Your task to perform on an android device: change keyboard looks Image 0: 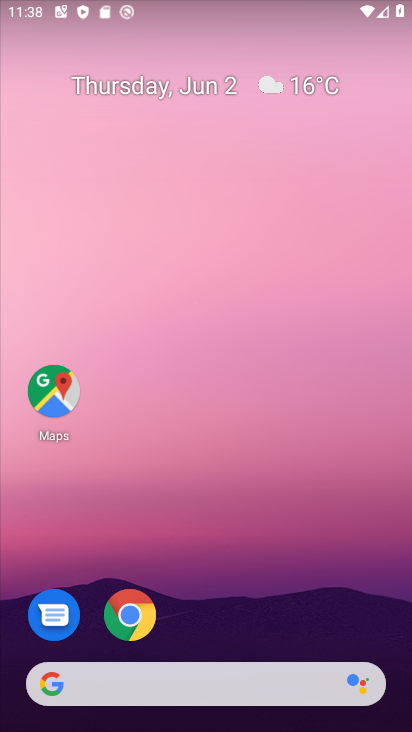
Step 0: drag from (240, 619) to (193, 217)
Your task to perform on an android device: change keyboard looks Image 1: 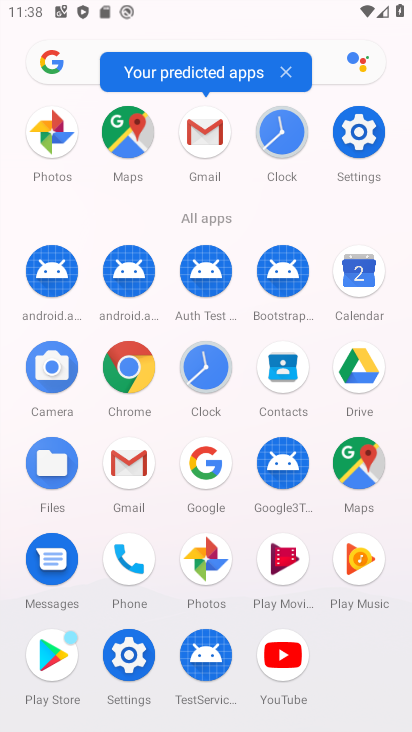
Step 1: click (127, 645)
Your task to perform on an android device: change keyboard looks Image 2: 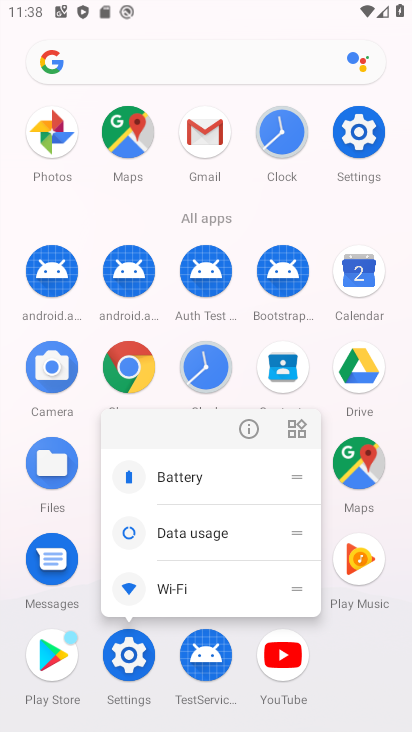
Step 2: click (350, 107)
Your task to perform on an android device: change keyboard looks Image 3: 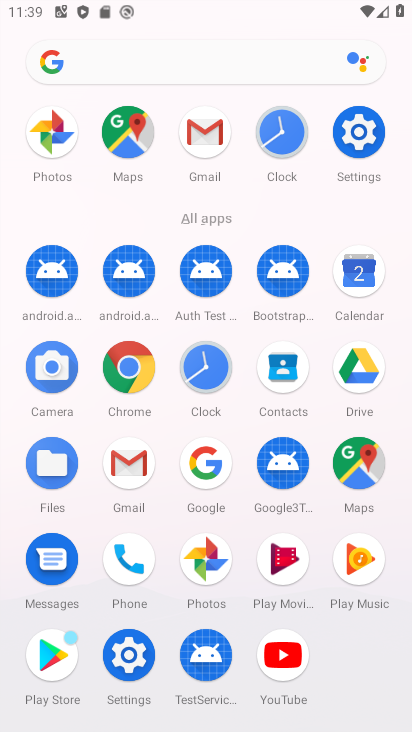
Step 3: click (362, 133)
Your task to perform on an android device: change keyboard looks Image 4: 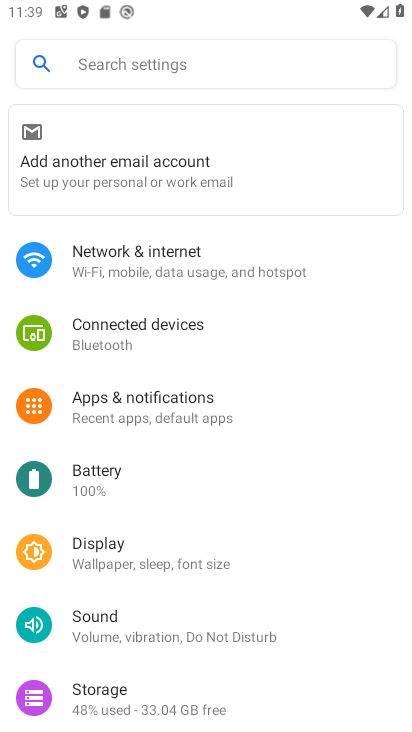
Step 4: drag from (208, 634) to (211, 335)
Your task to perform on an android device: change keyboard looks Image 5: 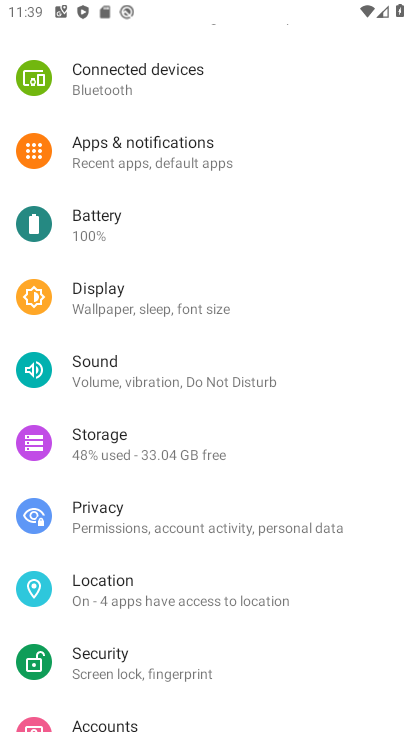
Step 5: drag from (168, 658) to (204, 307)
Your task to perform on an android device: change keyboard looks Image 6: 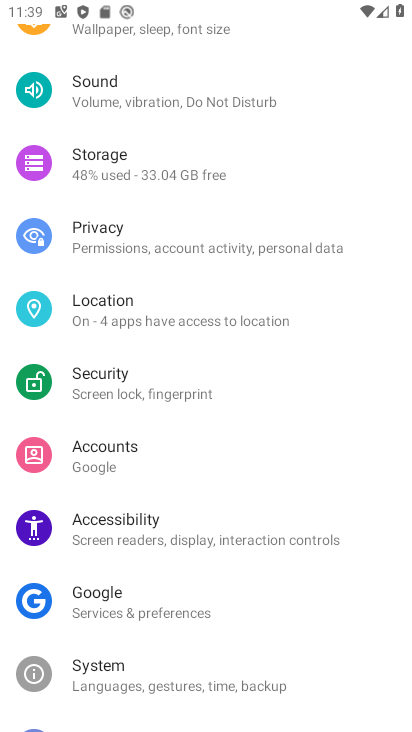
Step 6: click (183, 678)
Your task to perform on an android device: change keyboard looks Image 7: 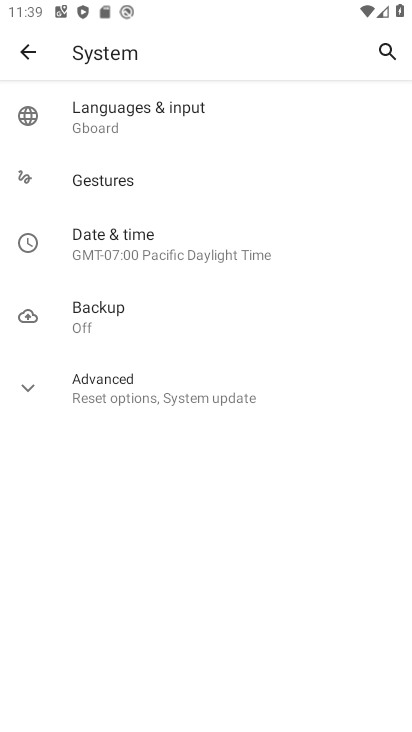
Step 7: click (132, 102)
Your task to perform on an android device: change keyboard looks Image 8: 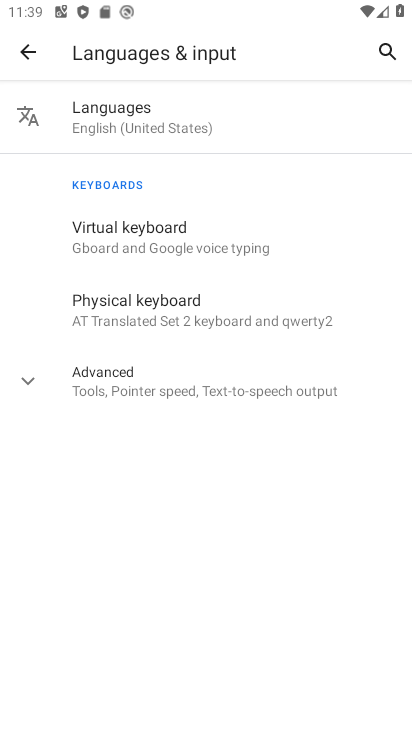
Step 8: click (142, 229)
Your task to perform on an android device: change keyboard looks Image 9: 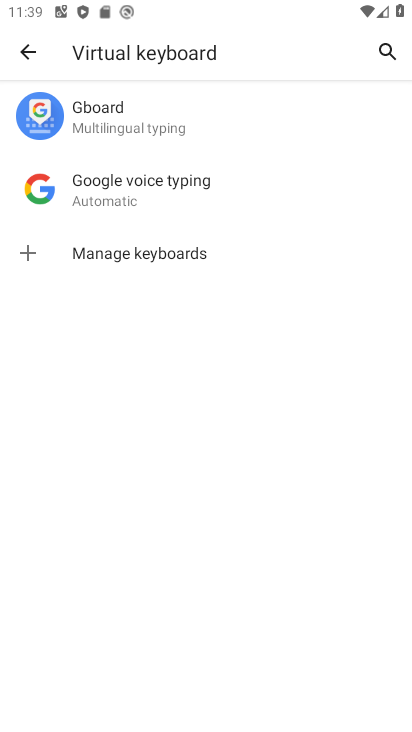
Step 9: click (146, 116)
Your task to perform on an android device: change keyboard looks Image 10: 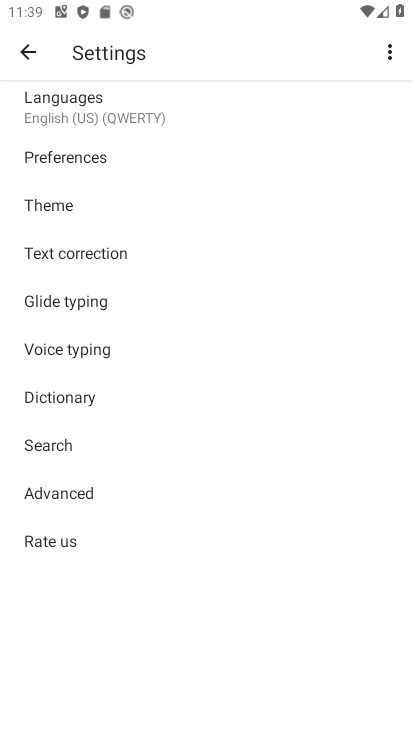
Step 10: click (89, 196)
Your task to perform on an android device: change keyboard looks Image 11: 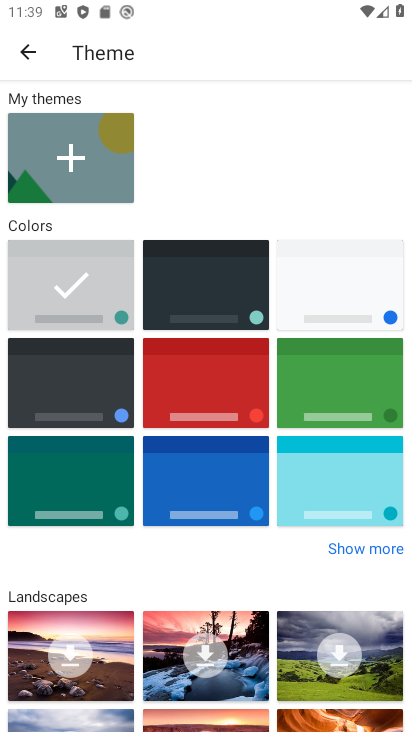
Step 11: click (239, 489)
Your task to perform on an android device: change keyboard looks Image 12: 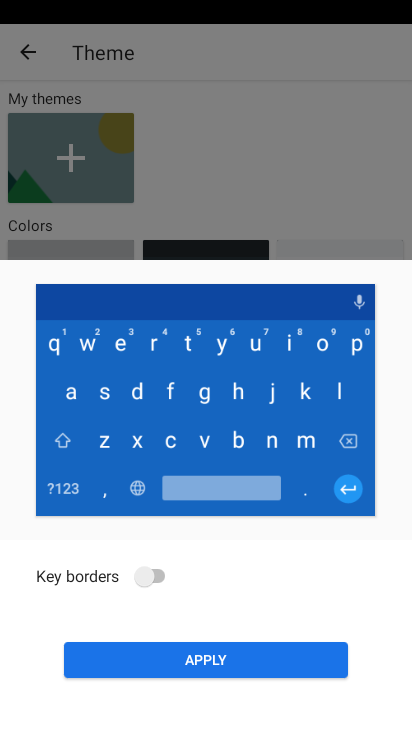
Step 12: click (272, 660)
Your task to perform on an android device: change keyboard looks Image 13: 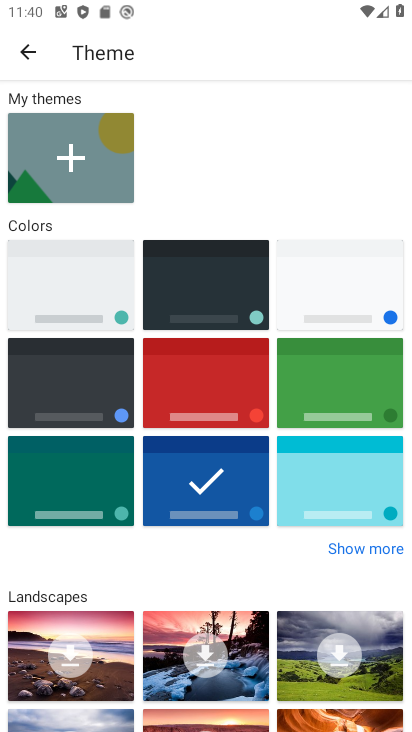
Step 13: task complete